Your task to perform on an android device: Open Google Maps Image 0: 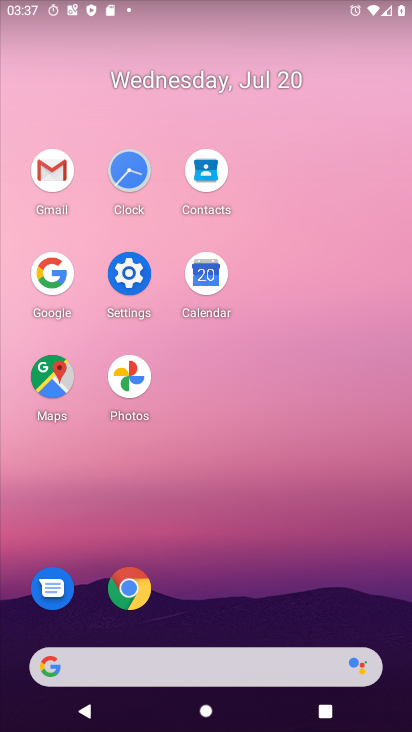
Step 0: click (50, 371)
Your task to perform on an android device: Open Google Maps Image 1: 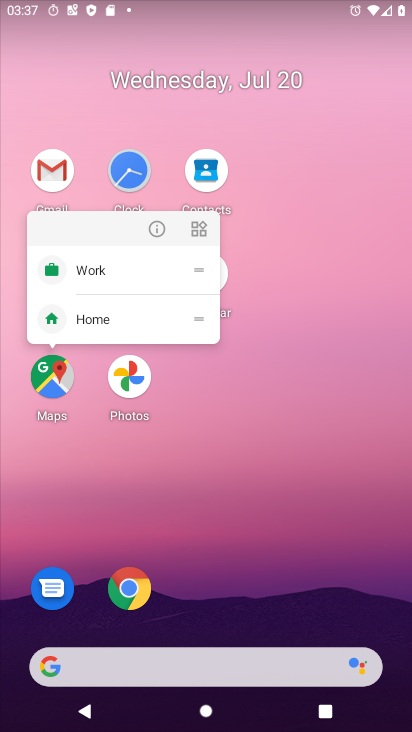
Step 1: click (62, 365)
Your task to perform on an android device: Open Google Maps Image 2: 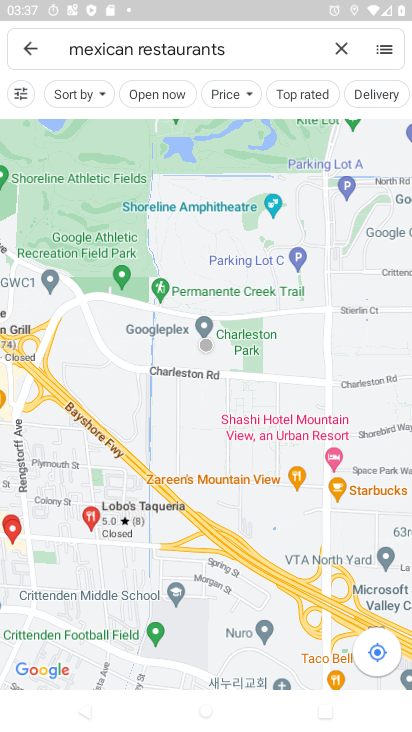
Step 2: task complete